Your task to perform on an android device: Turn on the flashlight Image 0: 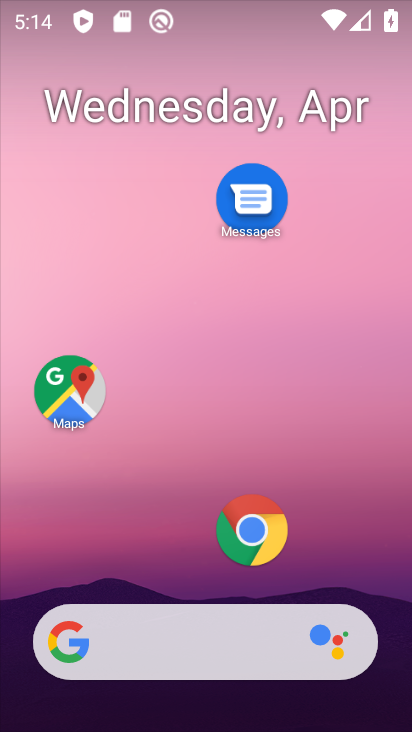
Step 0: drag from (336, 491) to (310, 55)
Your task to perform on an android device: Turn on the flashlight Image 1: 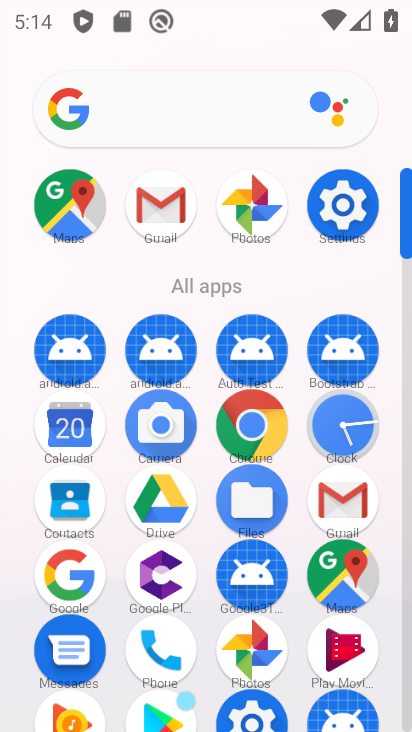
Step 1: click (345, 206)
Your task to perform on an android device: Turn on the flashlight Image 2: 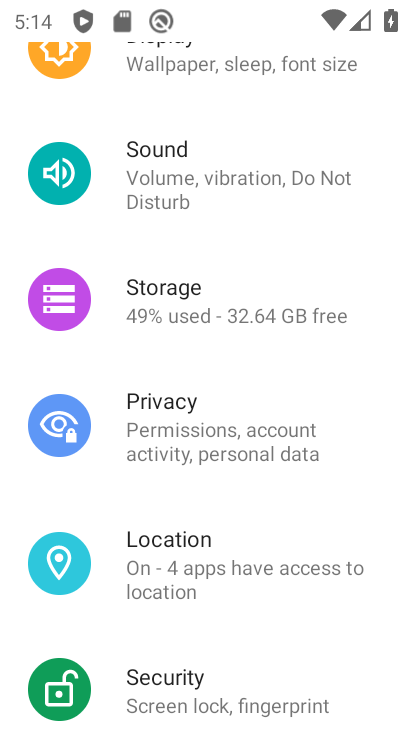
Step 2: click (269, 54)
Your task to perform on an android device: Turn on the flashlight Image 3: 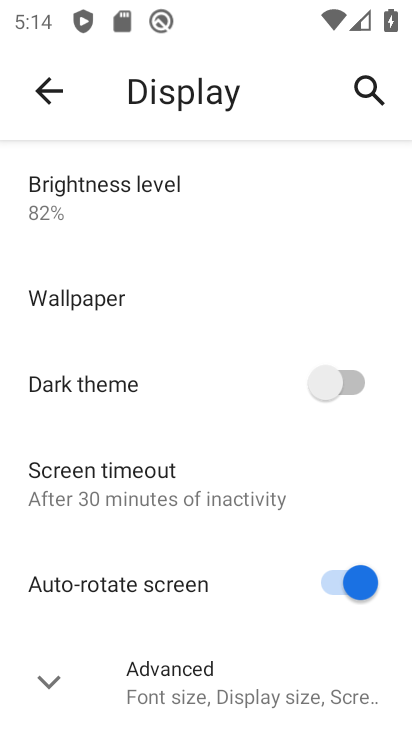
Step 3: drag from (188, 590) to (193, 435)
Your task to perform on an android device: Turn on the flashlight Image 4: 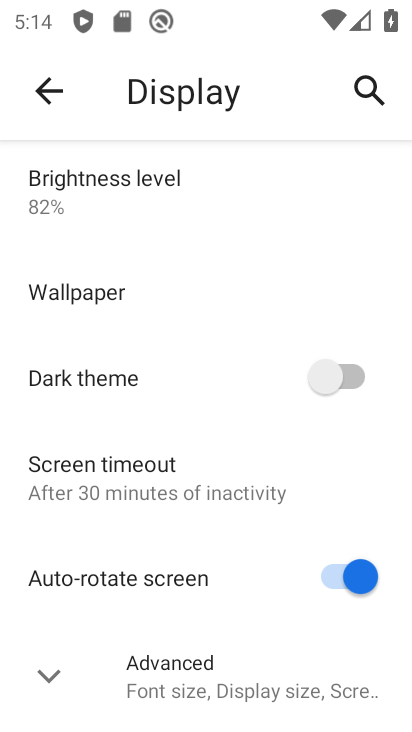
Step 4: click (210, 679)
Your task to perform on an android device: Turn on the flashlight Image 5: 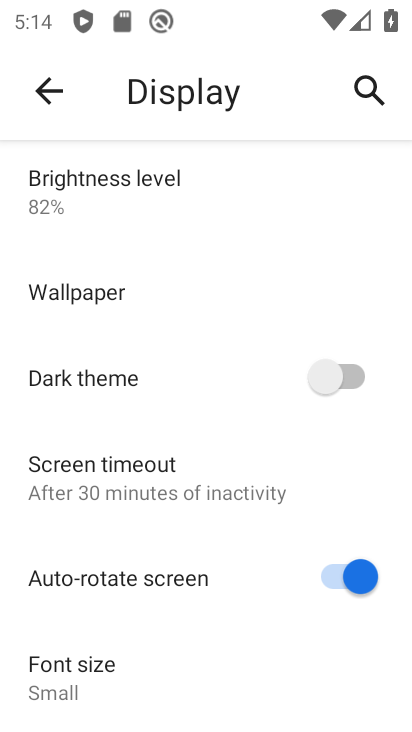
Step 5: task complete